Your task to perform on an android device: Go to display settings Image 0: 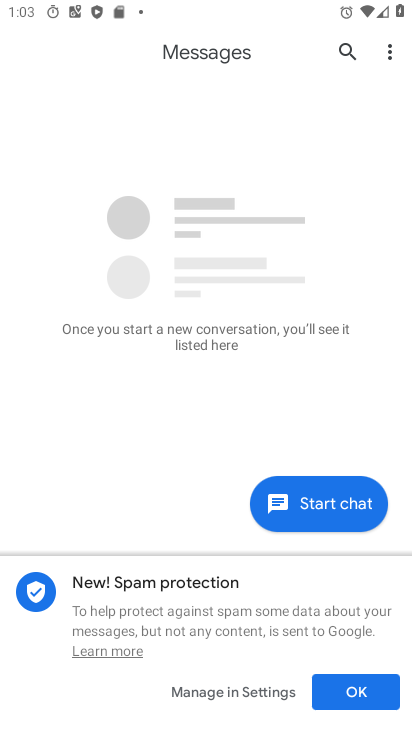
Step 0: press home button
Your task to perform on an android device: Go to display settings Image 1: 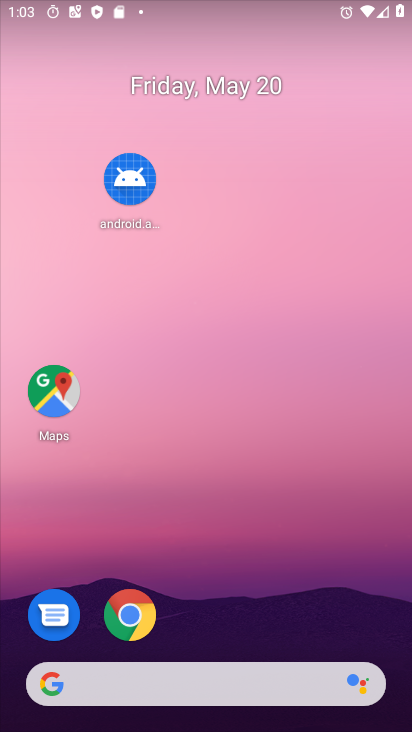
Step 1: drag from (348, 588) to (296, 30)
Your task to perform on an android device: Go to display settings Image 2: 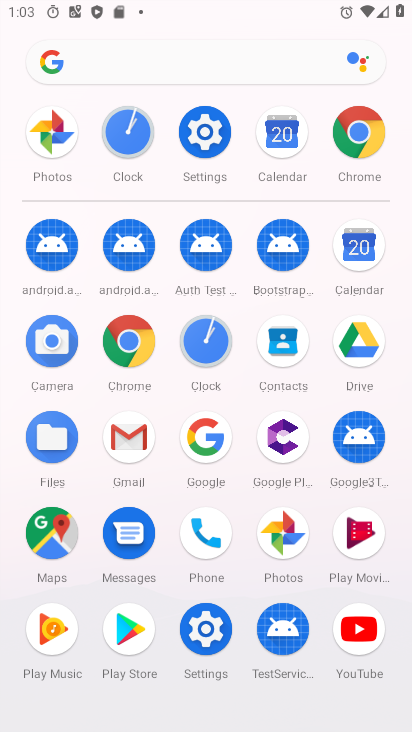
Step 2: click (213, 152)
Your task to perform on an android device: Go to display settings Image 3: 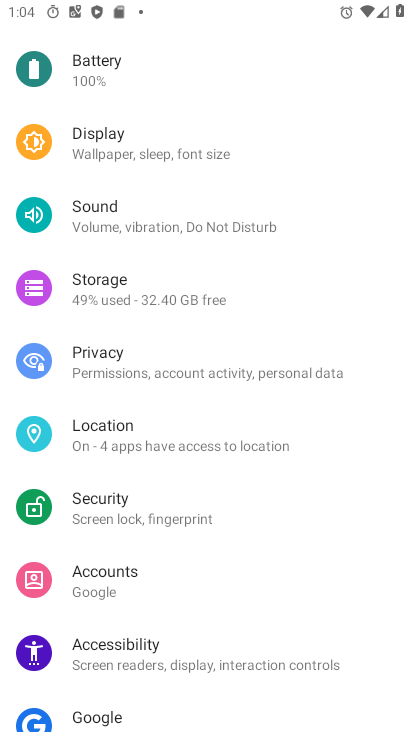
Step 3: click (102, 137)
Your task to perform on an android device: Go to display settings Image 4: 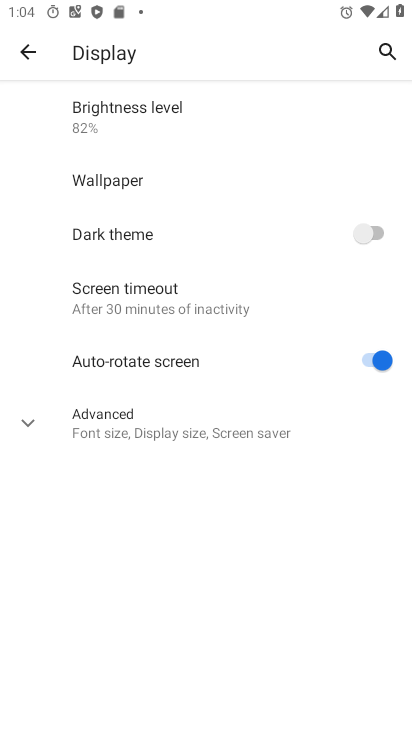
Step 4: task complete